Your task to perform on an android device: Open notification settings Image 0: 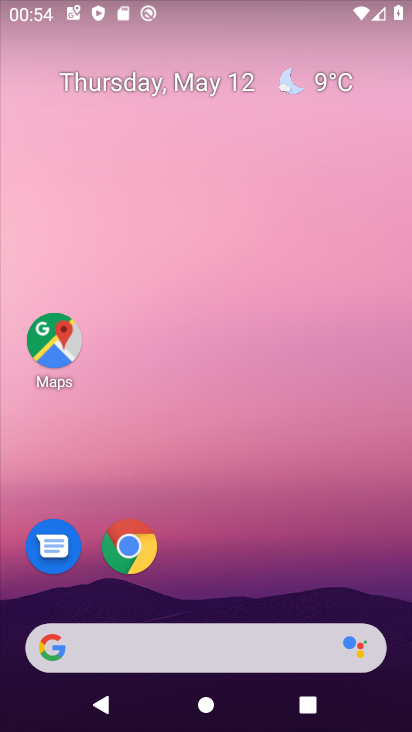
Step 0: drag from (189, 589) to (195, 146)
Your task to perform on an android device: Open notification settings Image 1: 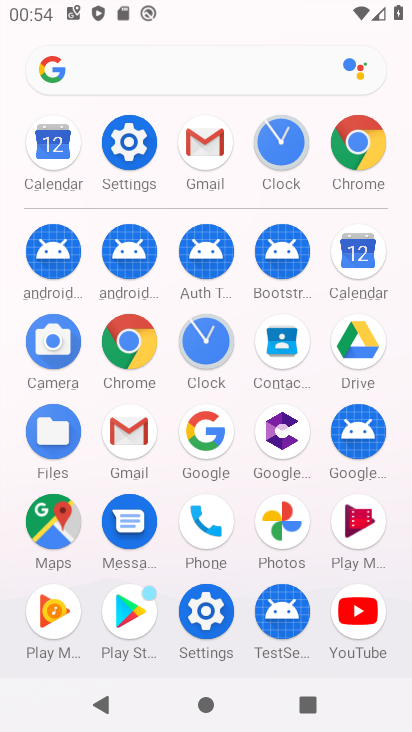
Step 1: click (209, 606)
Your task to perform on an android device: Open notification settings Image 2: 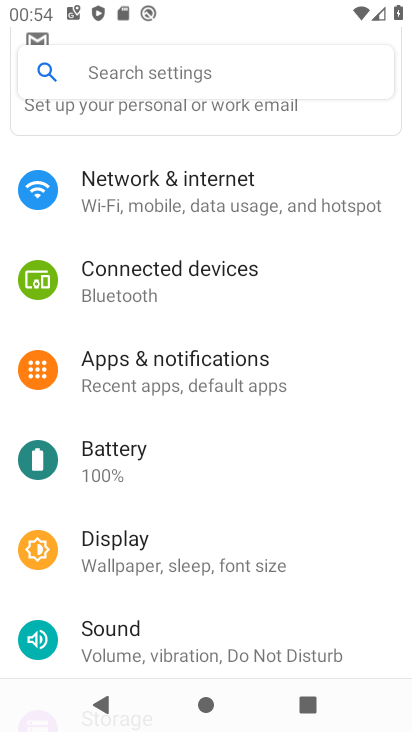
Step 2: click (181, 365)
Your task to perform on an android device: Open notification settings Image 3: 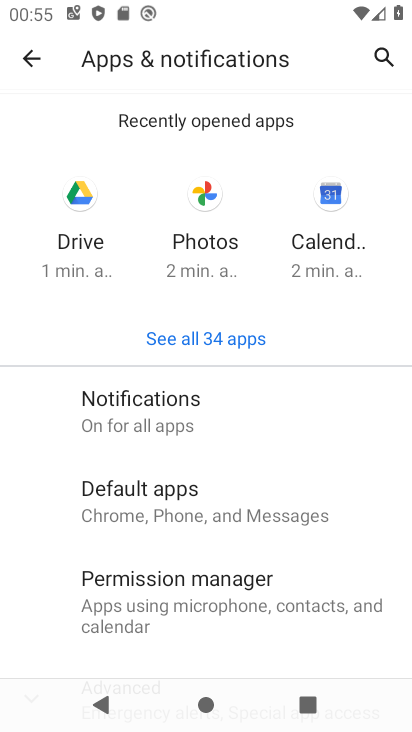
Step 3: task complete